Your task to perform on an android device: change the clock display to digital Image 0: 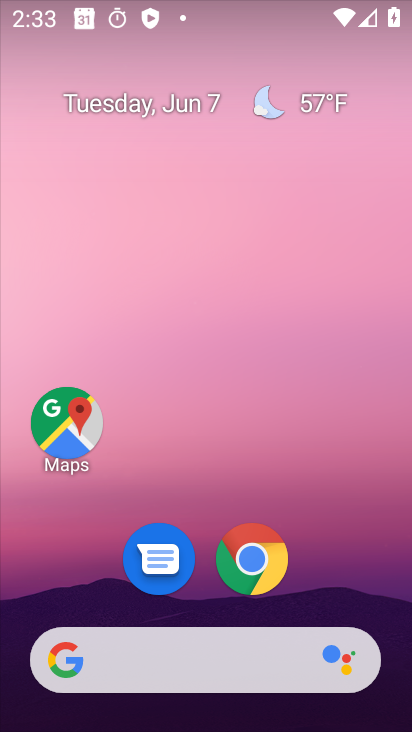
Step 0: drag from (350, 570) to (237, 16)
Your task to perform on an android device: change the clock display to digital Image 1: 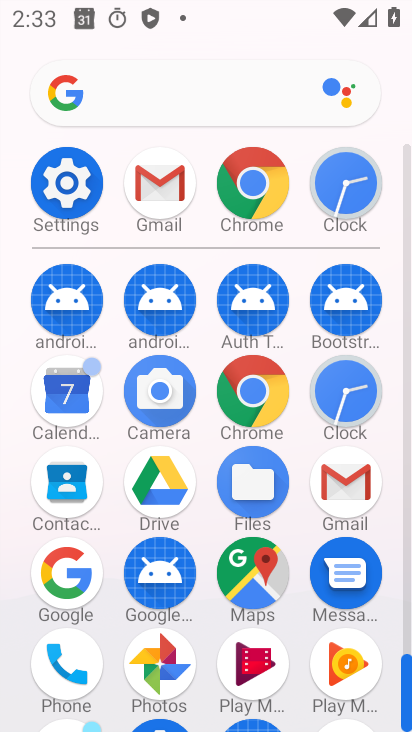
Step 1: click (346, 390)
Your task to perform on an android device: change the clock display to digital Image 2: 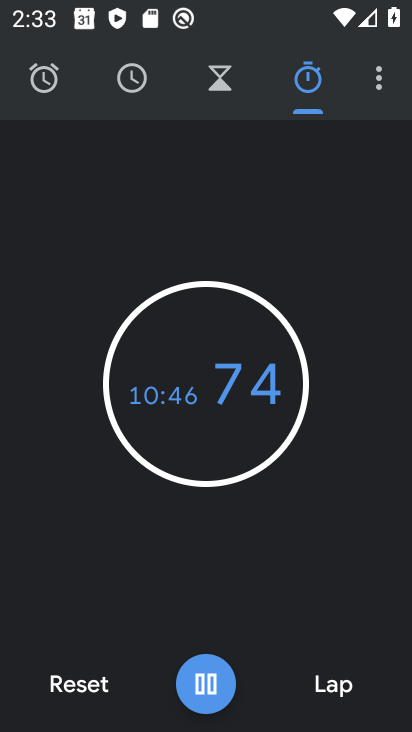
Step 2: drag from (372, 86) to (295, 150)
Your task to perform on an android device: change the clock display to digital Image 3: 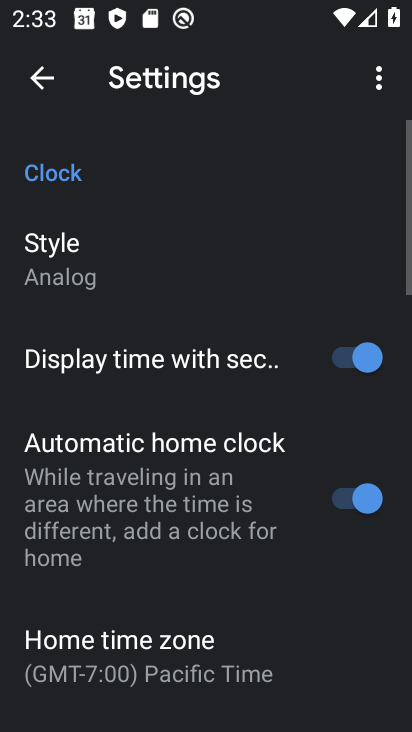
Step 3: click (89, 271)
Your task to perform on an android device: change the clock display to digital Image 4: 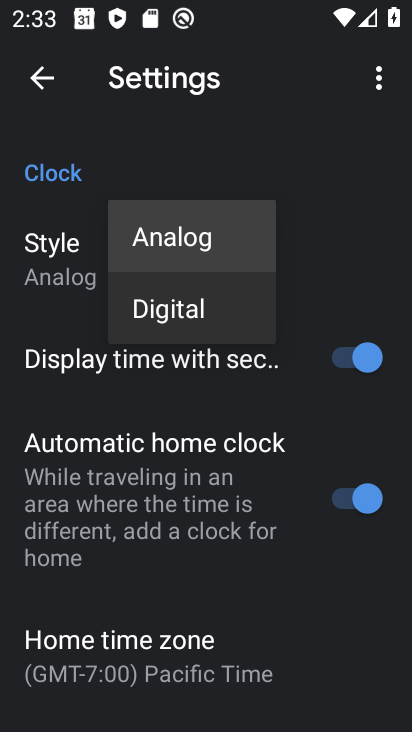
Step 4: click (183, 317)
Your task to perform on an android device: change the clock display to digital Image 5: 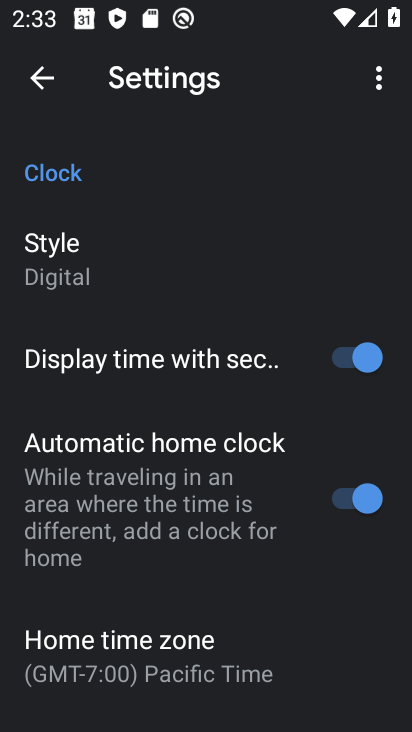
Step 5: task complete